Your task to perform on an android device: Open the calendar and show me this week's events? Image 0: 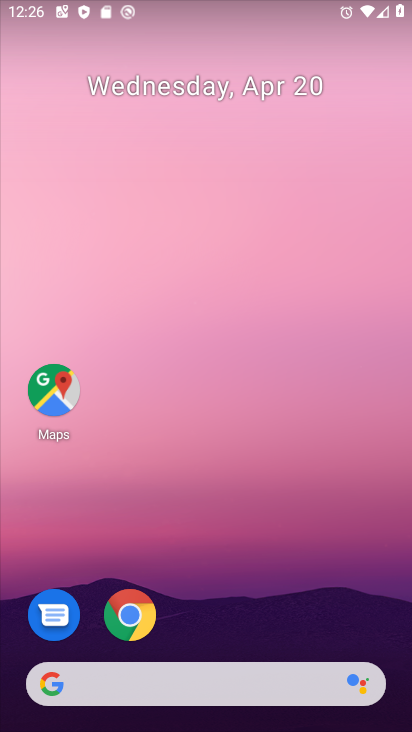
Step 0: drag from (358, 282) to (344, 203)
Your task to perform on an android device: Open the calendar and show me this week's events? Image 1: 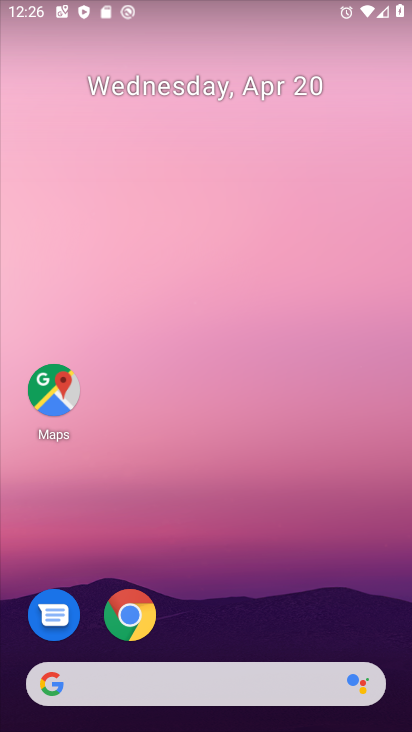
Step 1: drag from (389, 371) to (381, 202)
Your task to perform on an android device: Open the calendar and show me this week's events? Image 2: 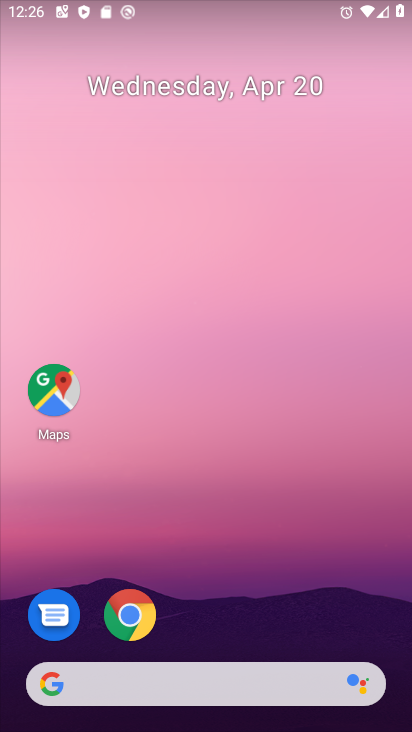
Step 2: drag from (378, 614) to (333, 116)
Your task to perform on an android device: Open the calendar and show me this week's events? Image 3: 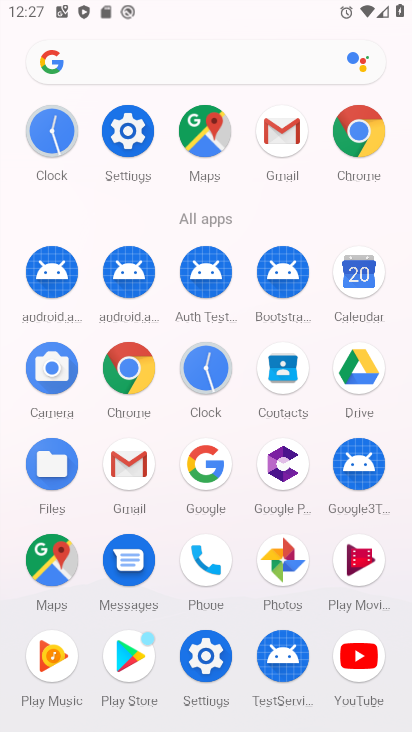
Step 3: click (359, 264)
Your task to perform on an android device: Open the calendar and show me this week's events? Image 4: 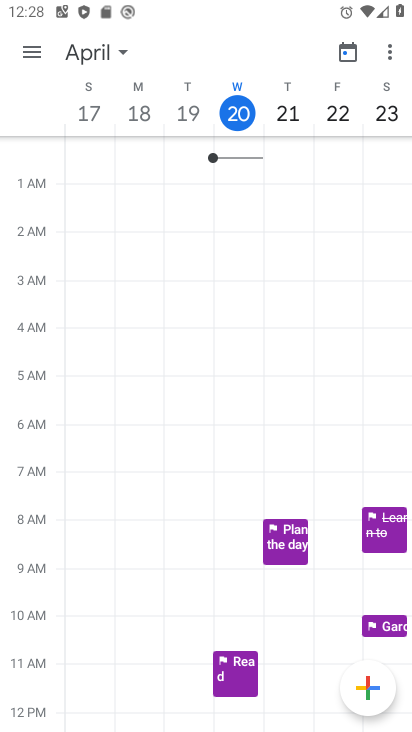
Step 4: click (115, 47)
Your task to perform on an android device: Open the calendar and show me this week's events? Image 5: 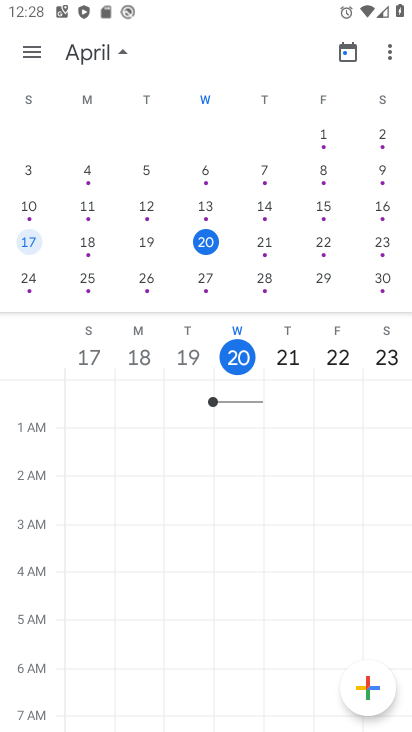
Step 5: click (259, 237)
Your task to perform on an android device: Open the calendar and show me this week's events? Image 6: 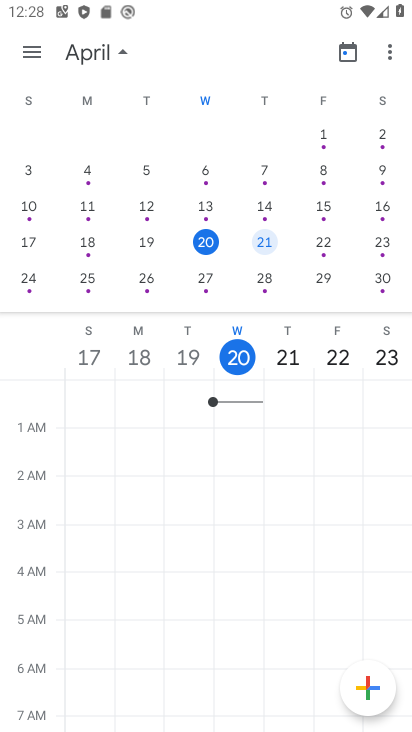
Step 6: task complete